Your task to perform on an android device: turn pop-ups on in chrome Image 0: 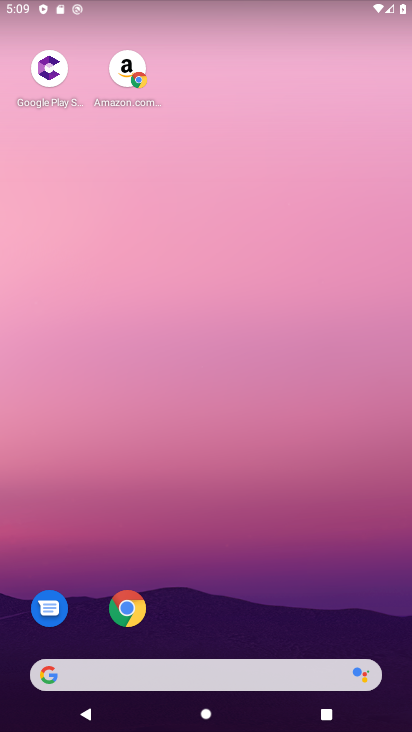
Step 0: click (126, 609)
Your task to perform on an android device: turn pop-ups on in chrome Image 1: 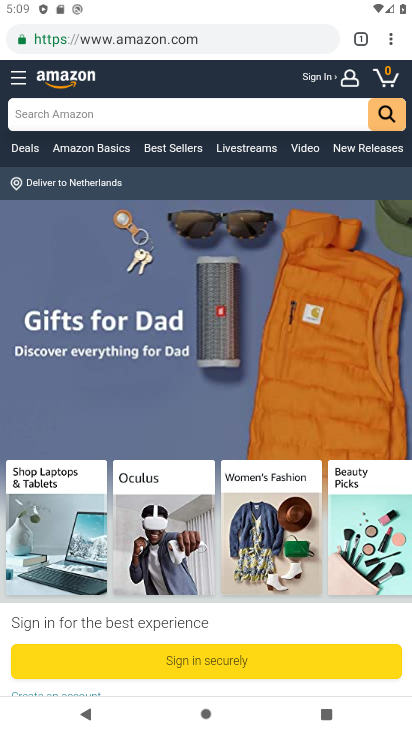
Step 1: click (390, 39)
Your task to perform on an android device: turn pop-ups on in chrome Image 2: 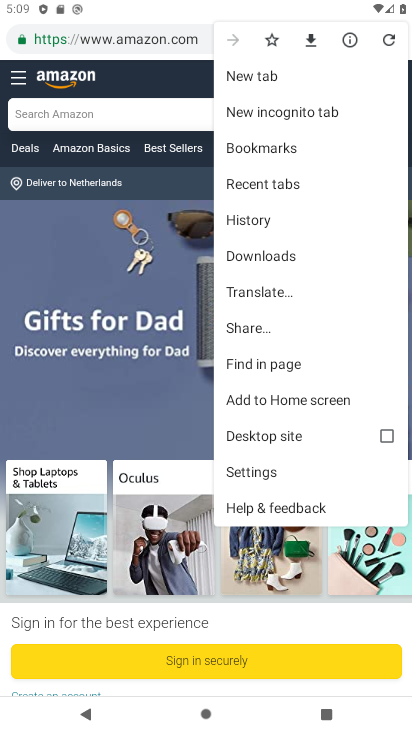
Step 2: click (254, 470)
Your task to perform on an android device: turn pop-ups on in chrome Image 3: 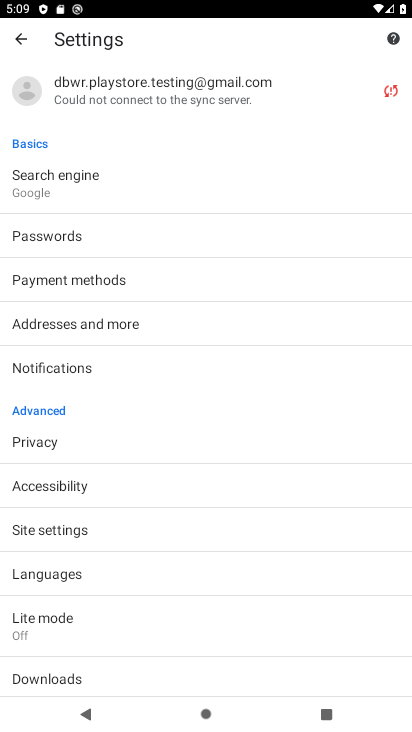
Step 3: click (70, 532)
Your task to perform on an android device: turn pop-ups on in chrome Image 4: 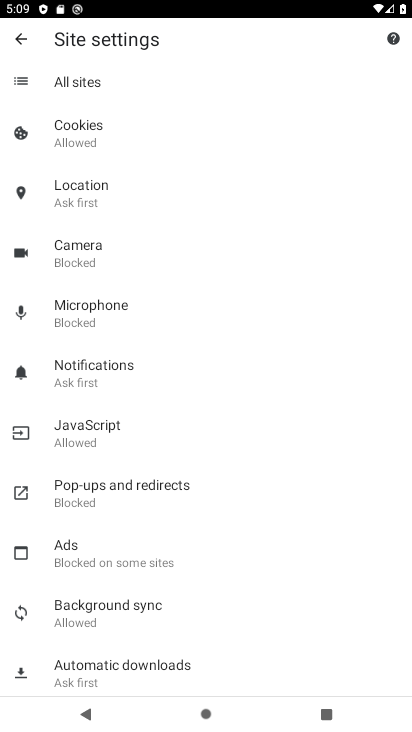
Step 4: click (127, 492)
Your task to perform on an android device: turn pop-ups on in chrome Image 5: 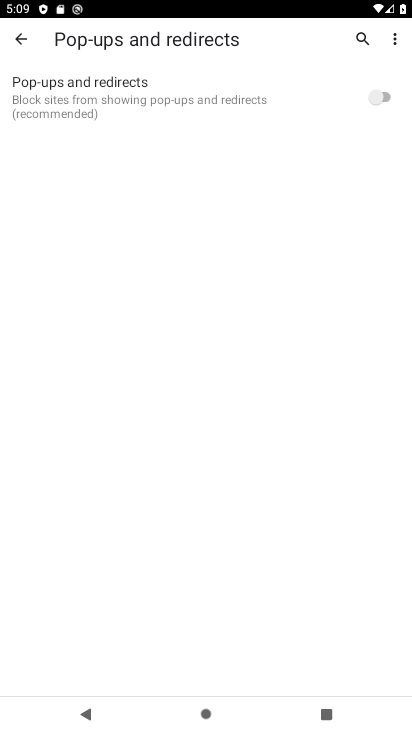
Step 5: click (393, 101)
Your task to perform on an android device: turn pop-ups on in chrome Image 6: 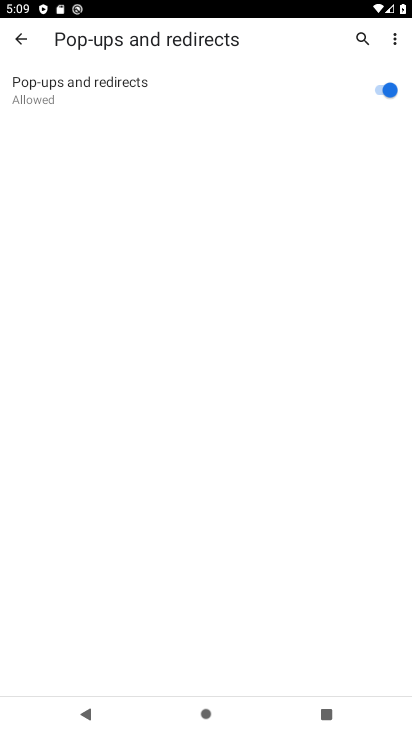
Step 6: task complete